Your task to perform on an android device: Search for seafood restaurants on Google Maps Image 0: 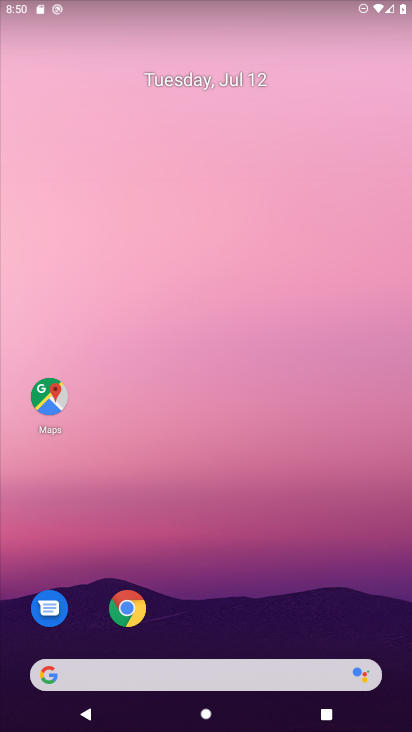
Step 0: click (58, 399)
Your task to perform on an android device: Search for seafood restaurants on Google Maps Image 1: 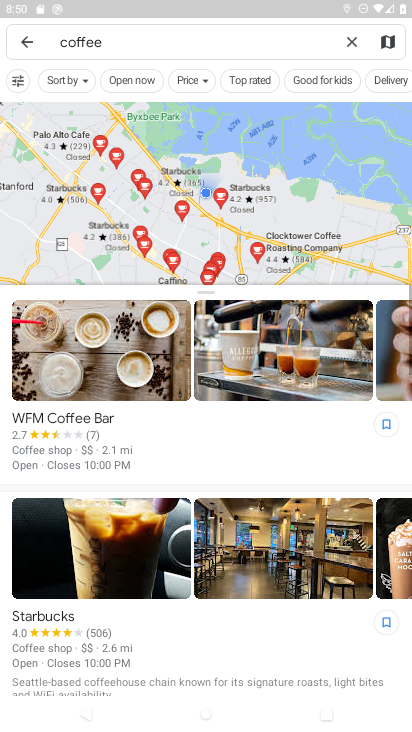
Step 1: click (356, 41)
Your task to perform on an android device: Search for seafood restaurants on Google Maps Image 2: 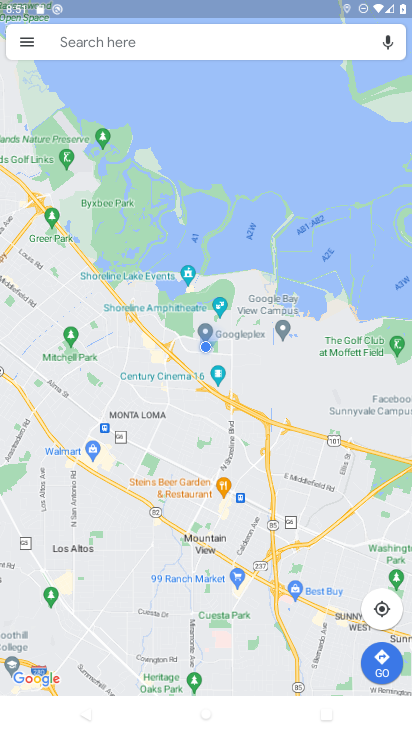
Step 2: click (329, 33)
Your task to perform on an android device: Search for seafood restaurants on Google Maps Image 3: 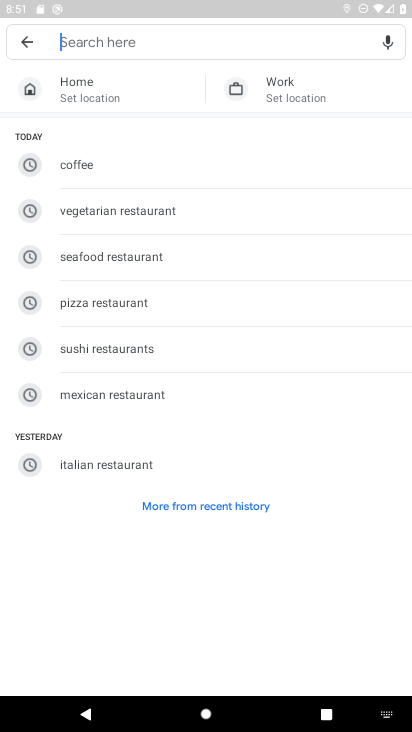
Step 3: click (168, 249)
Your task to perform on an android device: Search for seafood restaurants on Google Maps Image 4: 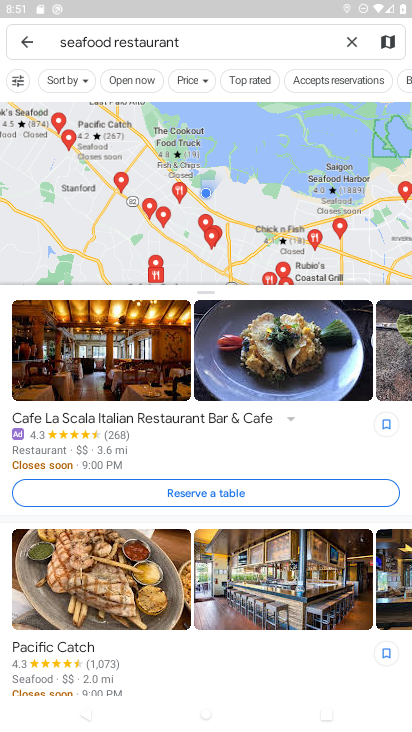
Step 4: task complete